Your task to perform on an android device: Is it going to rain tomorrow? Image 0: 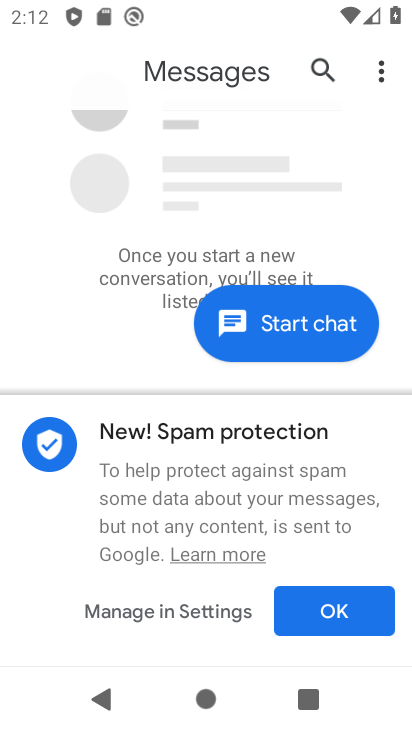
Step 0: press home button
Your task to perform on an android device: Is it going to rain tomorrow? Image 1: 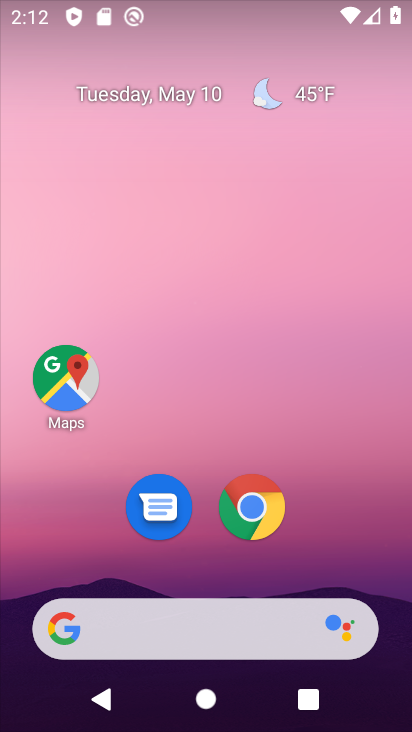
Step 1: click (257, 514)
Your task to perform on an android device: Is it going to rain tomorrow? Image 2: 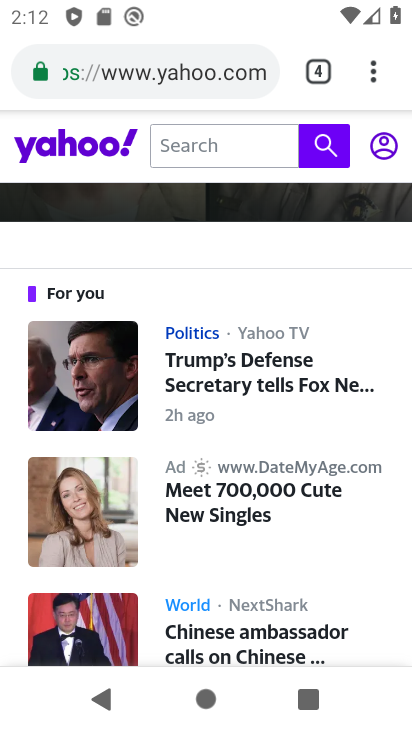
Step 2: click (322, 73)
Your task to perform on an android device: Is it going to rain tomorrow? Image 3: 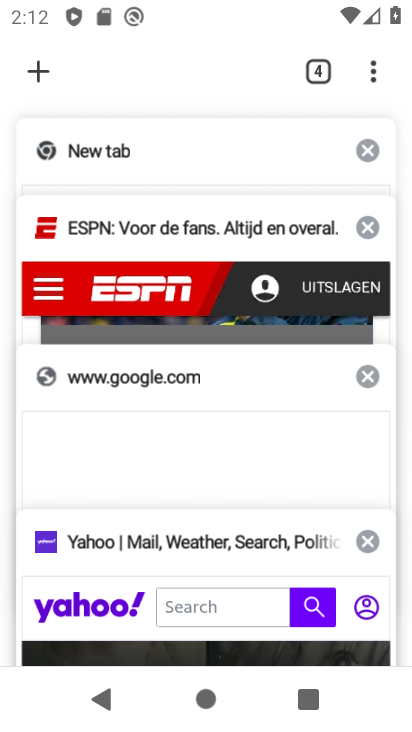
Step 3: click (62, 165)
Your task to perform on an android device: Is it going to rain tomorrow? Image 4: 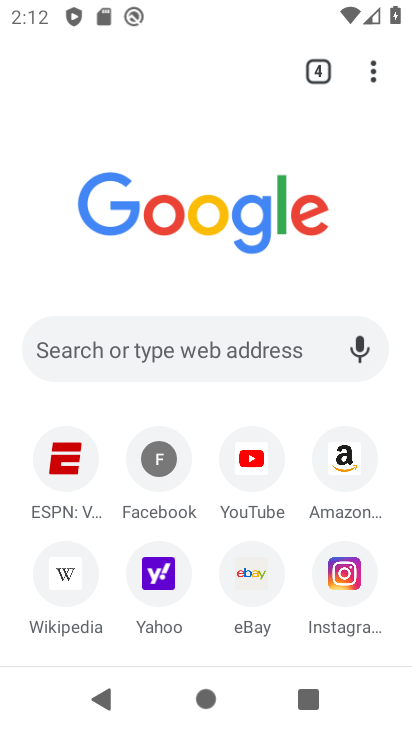
Step 4: click (109, 347)
Your task to perform on an android device: Is it going to rain tomorrow? Image 5: 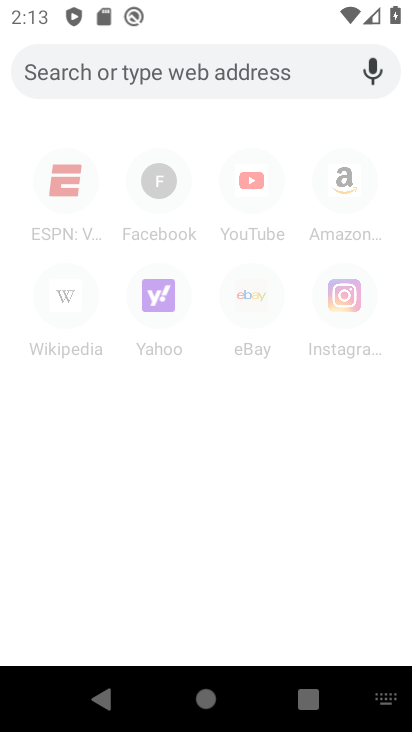
Step 5: type "is it going to rain tomorrow?"
Your task to perform on an android device: Is it going to rain tomorrow? Image 6: 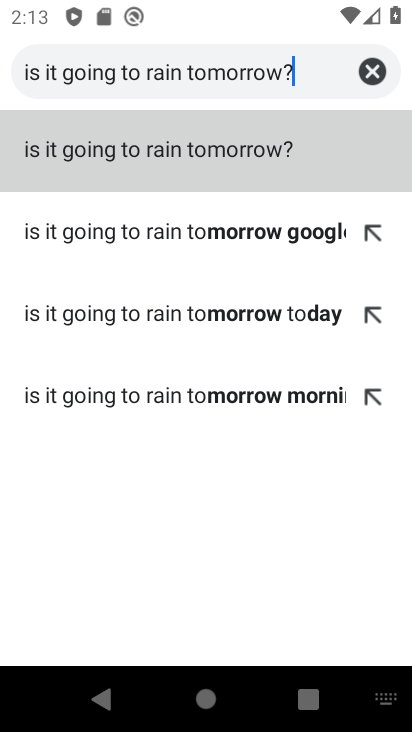
Step 6: click (126, 155)
Your task to perform on an android device: Is it going to rain tomorrow? Image 7: 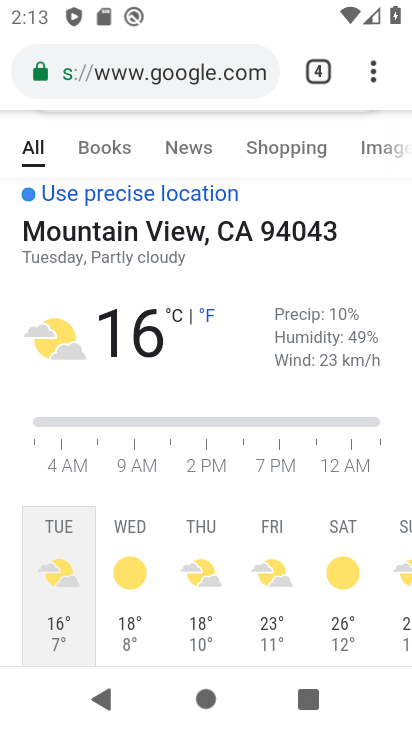
Step 7: task complete